Your task to perform on an android device: Open the phone app and click the voicemail tab. Image 0: 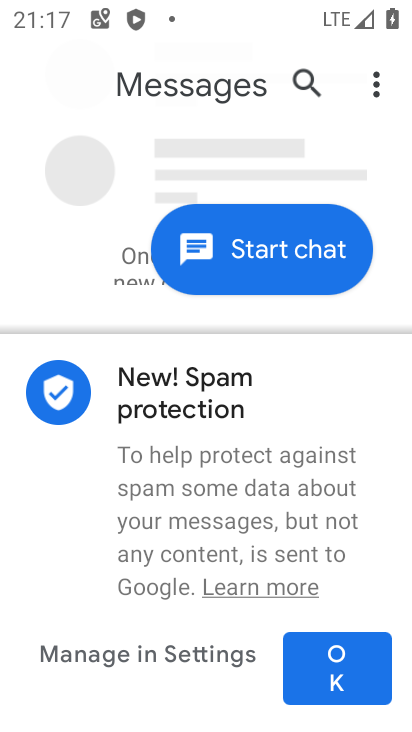
Step 0: press home button
Your task to perform on an android device: Open the phone app and click the voicemail tab. Image 1: 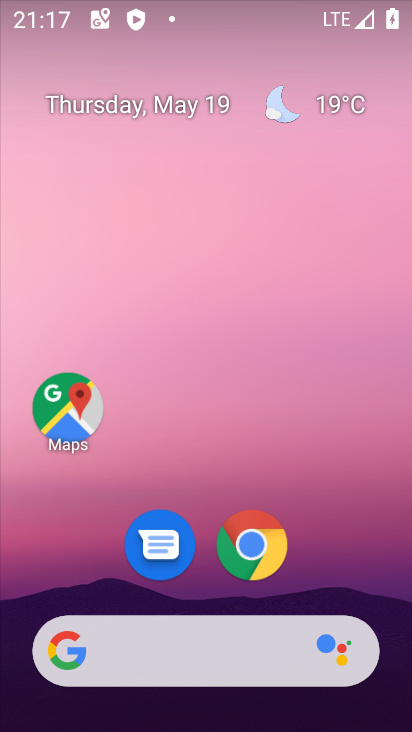
Step 1: drag from (339, 545) to (333, 241)
Your task to perform on an android device: Open the phone app and click the voicemail tab. Image 2: 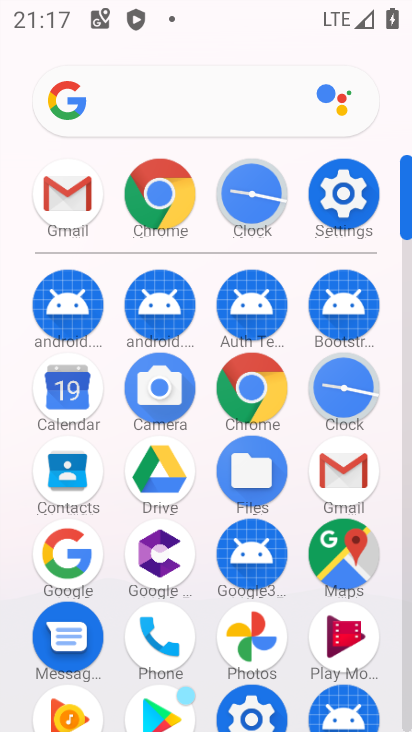
Step 2: click (121, 659)
Your task to perform on an android device: Open the phone app and click the voicemail tab. Image 3: 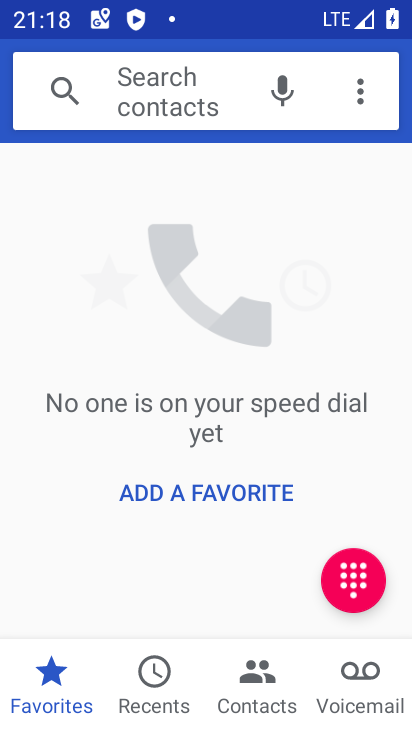
Step 3: click (325, 668)
Your task to perform on an android device: Open the phone app and click the voicemail tab. Image 4: 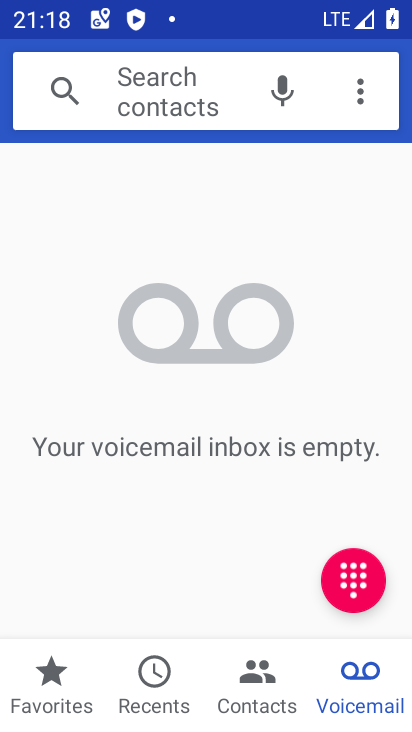
Step 4: task complete